Your task to perform on an android device: Clear the shopping cart on costco. Add "bose soundsport free" to the cart on costco Image 0: 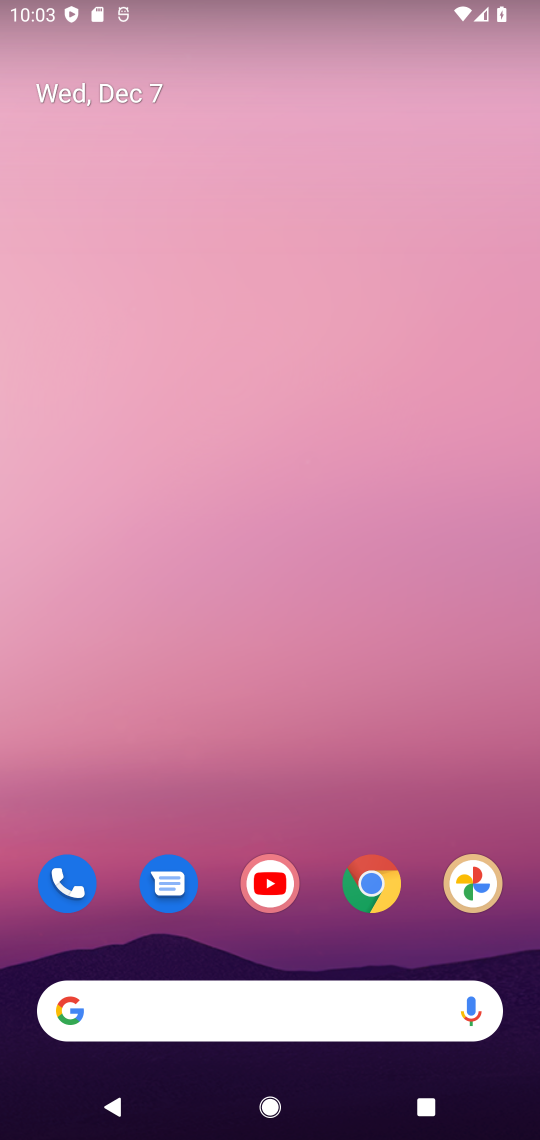
Step 0: drag from (321, 788) to (538, 37)
Your task to perform on an android device: Clear the shopping cart on costco. Add "bose soundsport free" to the cart on costco Image 1: 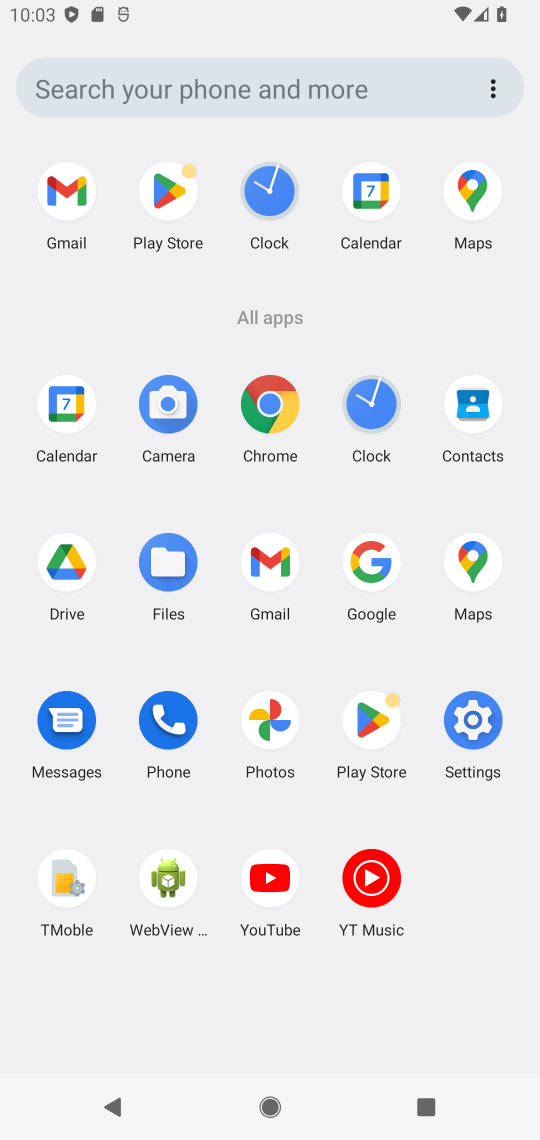
Step 1: click (363, 559)
Your task to perform on an android device: Clear the shopping cart on costco. Add "bose soundsport free" to the cart on costco Image 2: 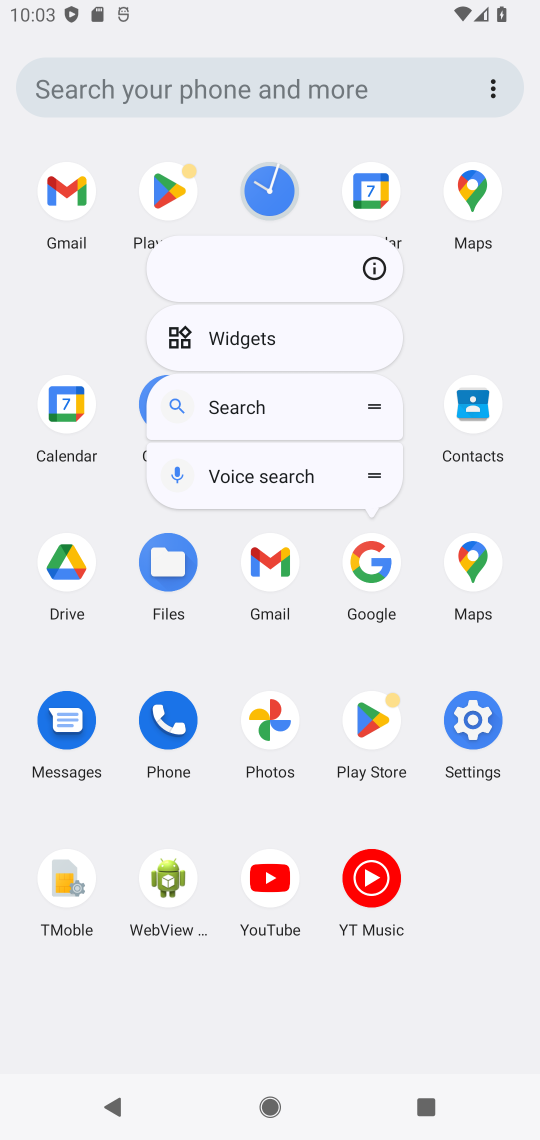
Step 2: click (376, 551)
Your task to perform on an android device: Clear the shopping cart on costco. Add "bose soundsport free" to the cart on costco Image 3: 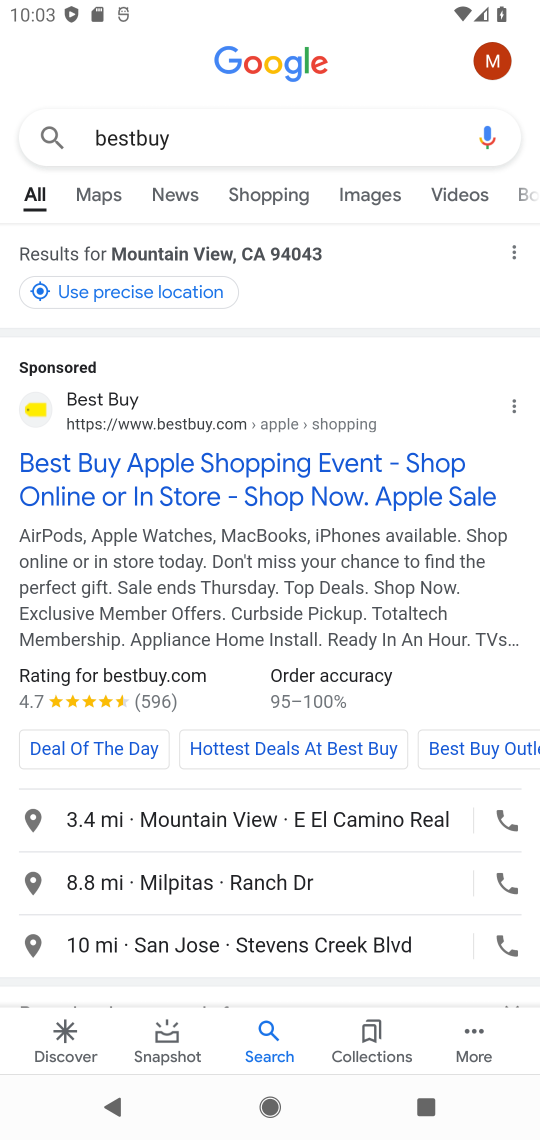
Step 3: click (247, 140)
Your task to perform on an android device: Clear the shopping cart on costco. Add "bose soundsport free" to the cart on costco Image 4: 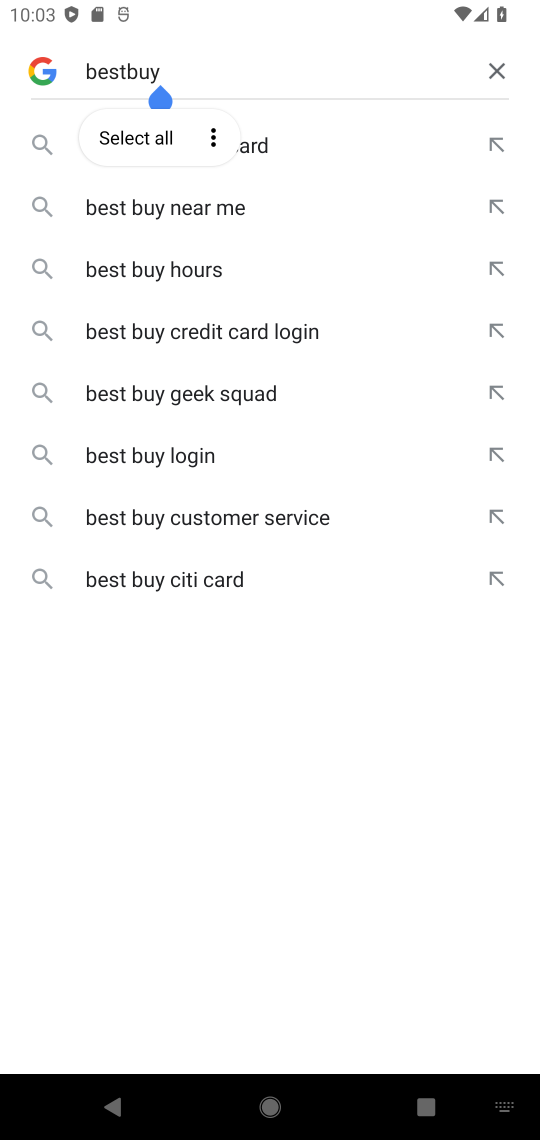
Step 4: click (486, 73)
Your task to perform on an android device: Clear the shopping cart on costco. Add "bose soundsport free" to the cart on costco Image 5: 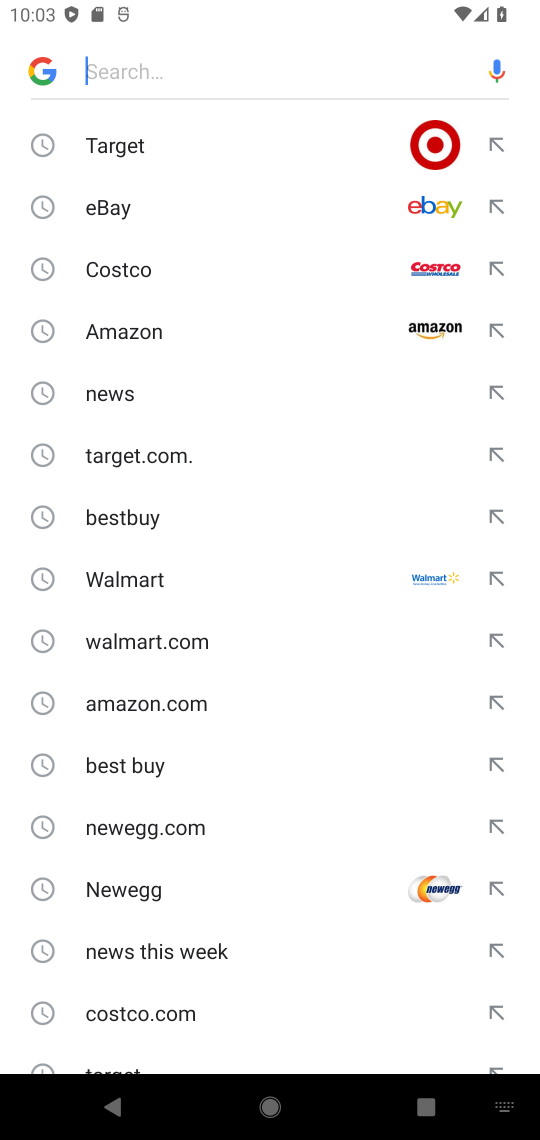
Step 5: click (425, 269)
Your task to perform on an android device: Clear the shopping cart on costco. Add "bose soundsport free" to the cart on costco Image 6: 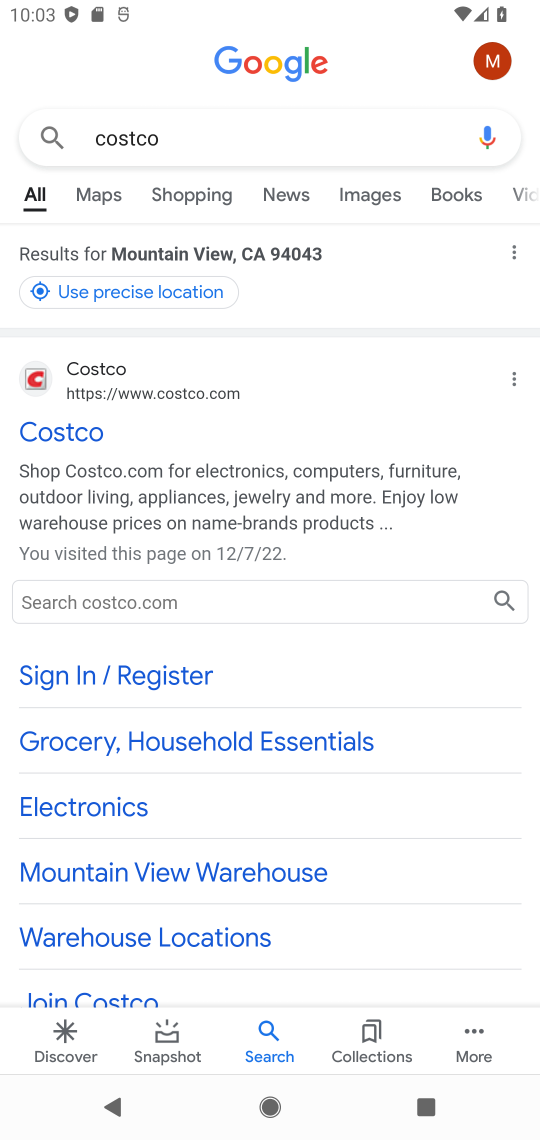
Step 6: click (54, 433)
Your task to perform on an android device: Clear the shopping cart on costco. Add "bose soundsport free" to the cart on costco Image 7: 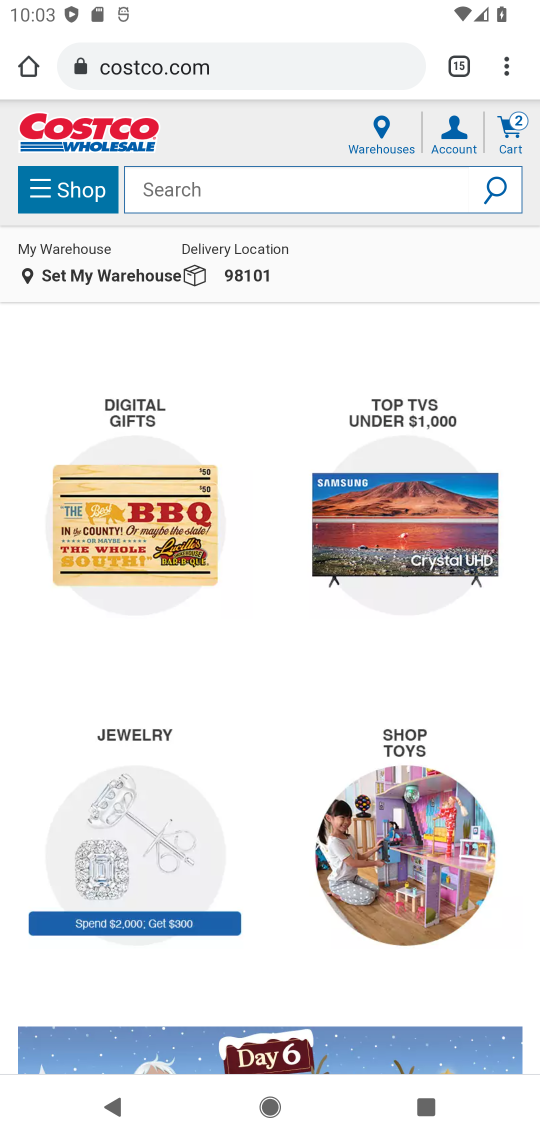
Step 7: click (195, 197)
Your task to perform on an android device: Clear the shopping cart on costco. Add "bose soundsport free" to the cart on costco Image 8: 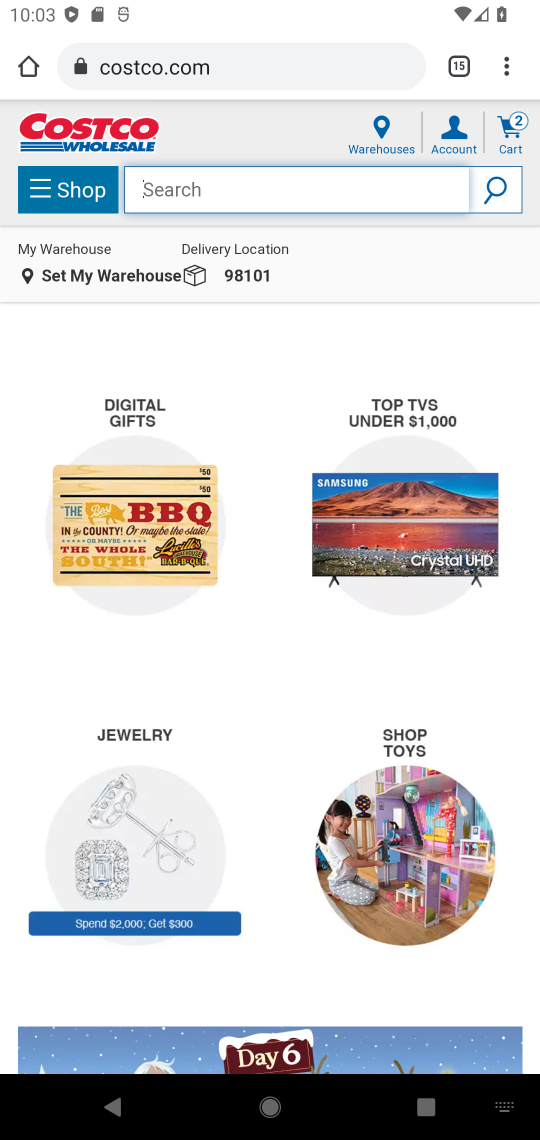
Step 8: click (522, 135)
Your task to perform on an android device: Clear the shopping cart on costco. Add "bose soundsport free" to the cart on costco Image 9: 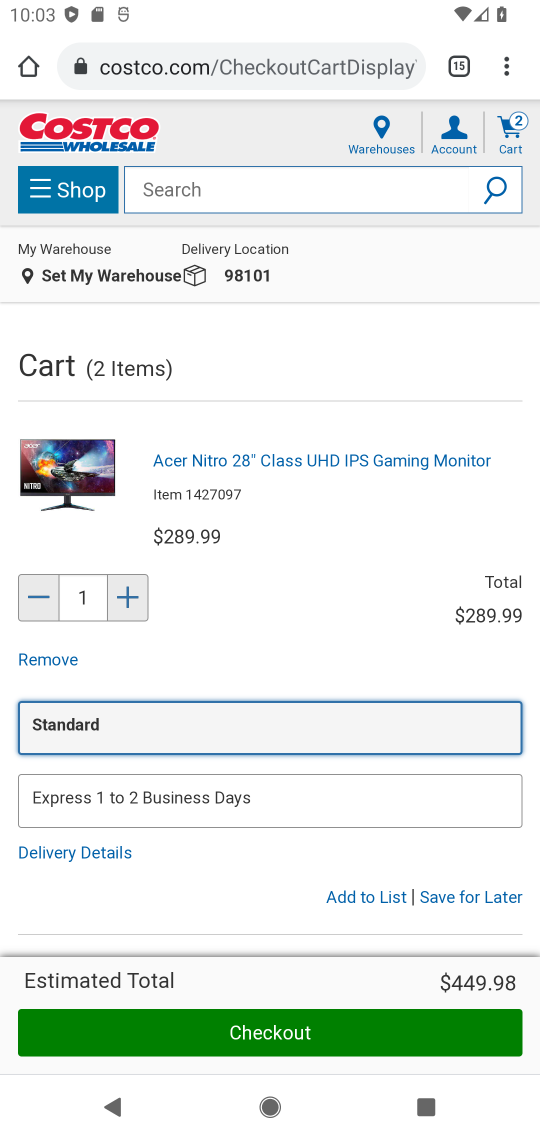
Step 9: click (42, 654)
Your task to perform on an android device: Clear the shopping cart on costco. Add "bose soundsport free" to the cart on costco Image 10: 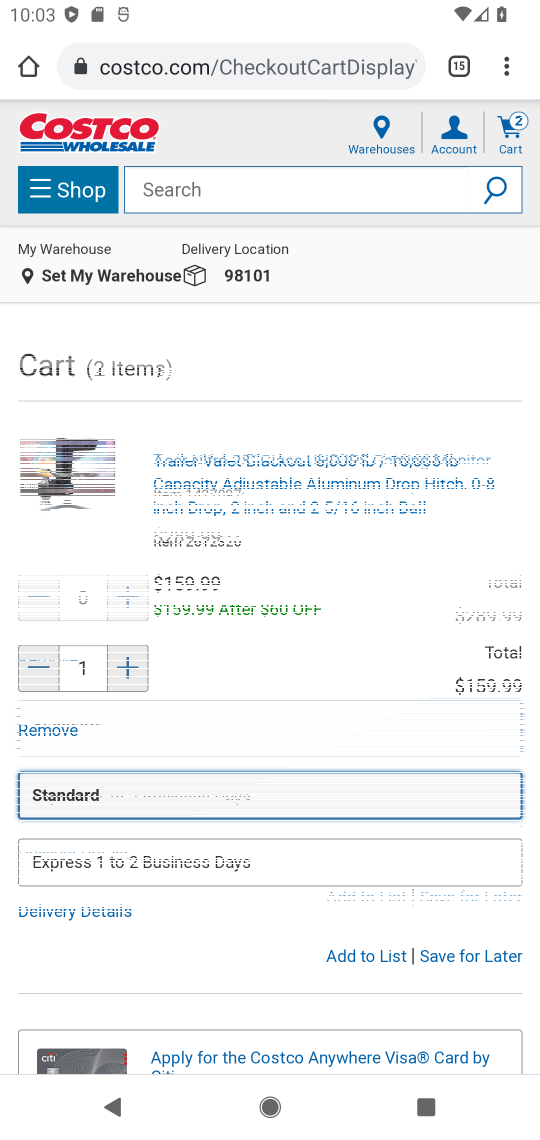
Step 10: click (69, 728)
Your task to perform on an android device: Clear the shopping cart on costco. Add "bose soundsport free" to the cart on costco Image 11: 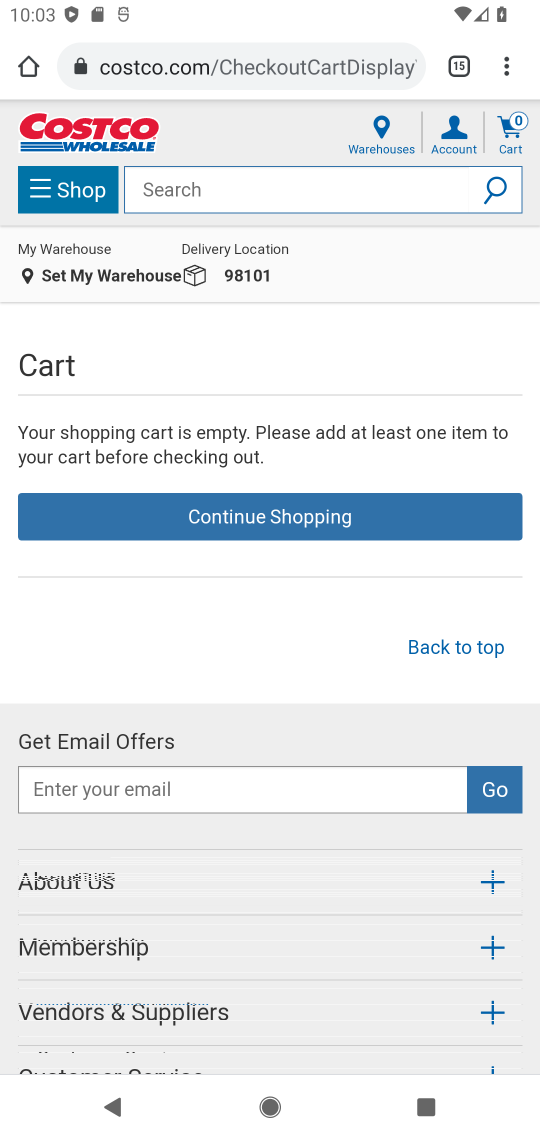
Step 11: click (225, 177)
Your task to perform on an android device: Clear the shopping cart on costco. Add "bose soundsport free" to the cart on costco Image 12: 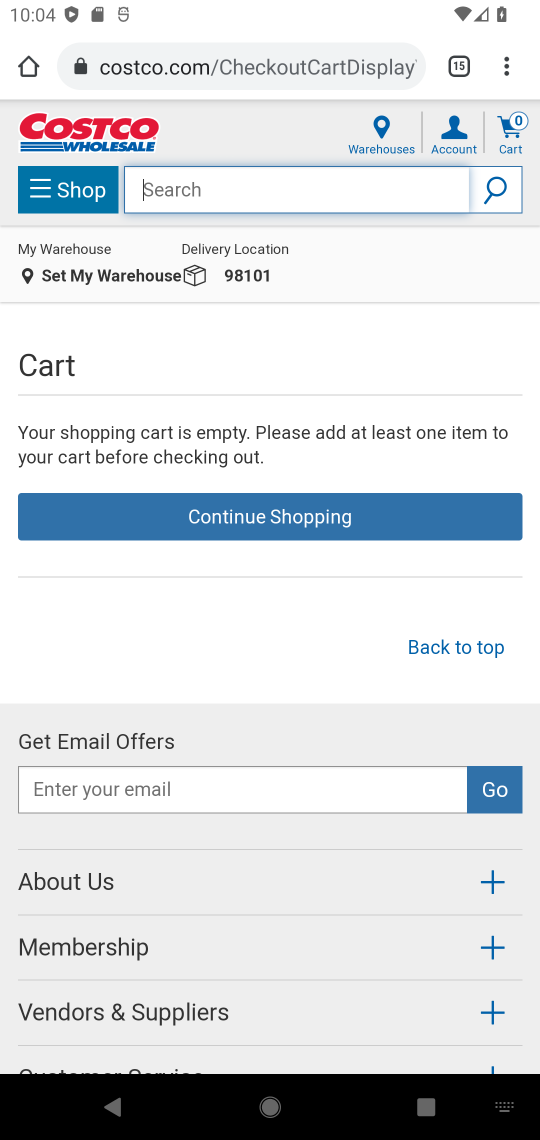
Step 12: type "bose soundsport free"
Your task to perform on an android device: Clear the shopping cart on costco. Add "bose soundsport free" to the cart on costco Image 13: 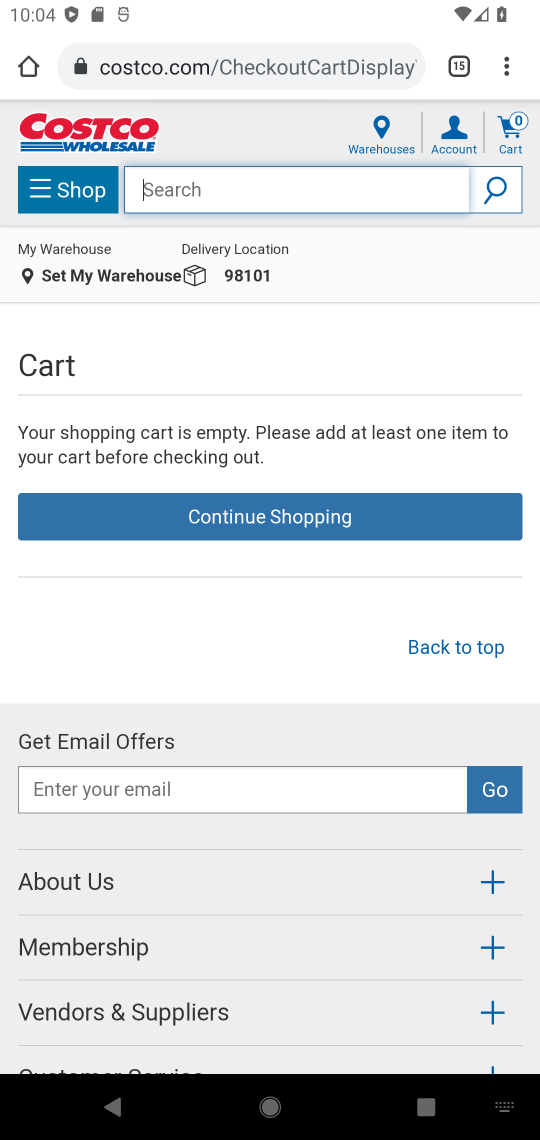
Step 13: click (493, 190)
Your task to perform on an android device: Clear the shopping cart on costco. Add "bose soundsport free" to the cart on costco Image 14: 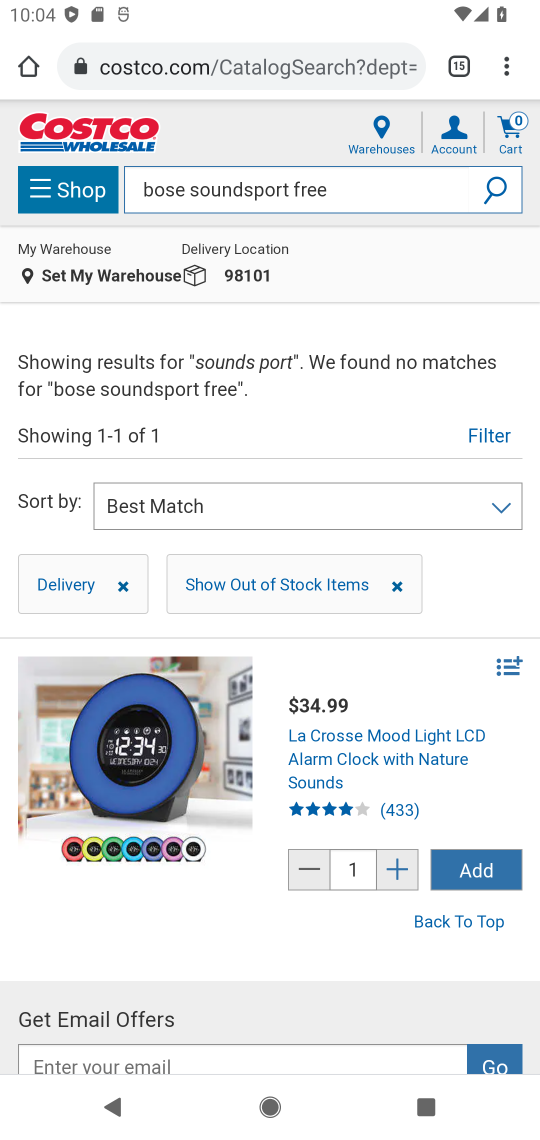
Step 14: task complete